Your task to perform on an android device: Open Yahoo.com Image 0: 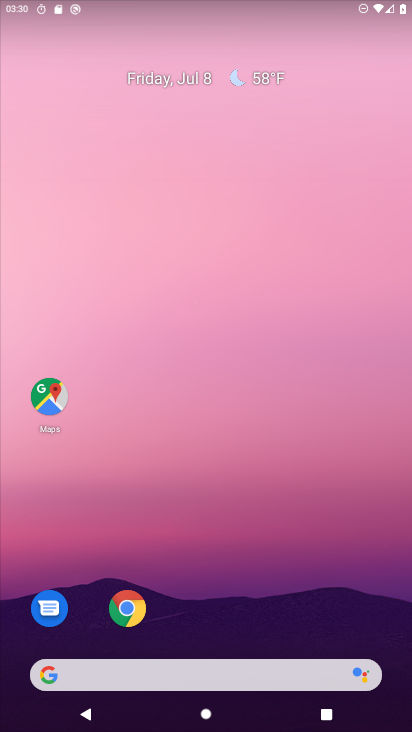
Step 0: click (123, 610)
Your task to perform on an android device: Open Yahoo.com Image 1: 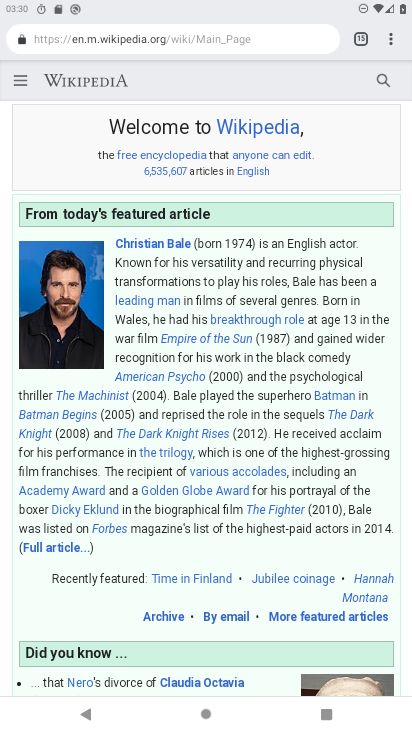
Step 1: click (389, 40)
Your task to perform on an android device: Open Yahoo.com Image 2: 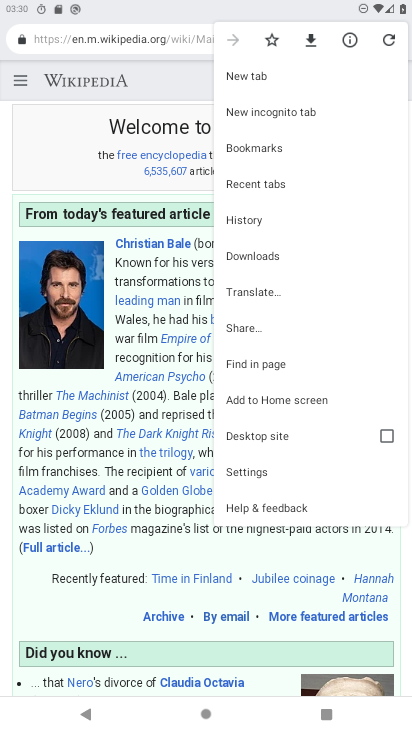
Step 2: click (247, 76)
Your task to perform on an android device: Open Yahoo.com Image 3: 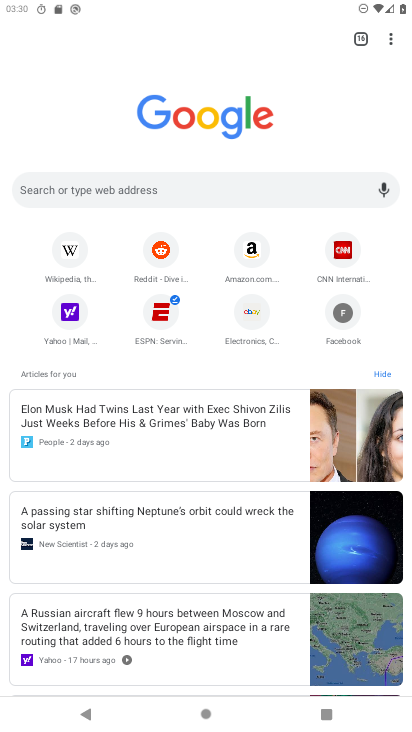
Step 3: click (69, 317)
Your task to perform on an android device: Open Yahoo.com Image 4: 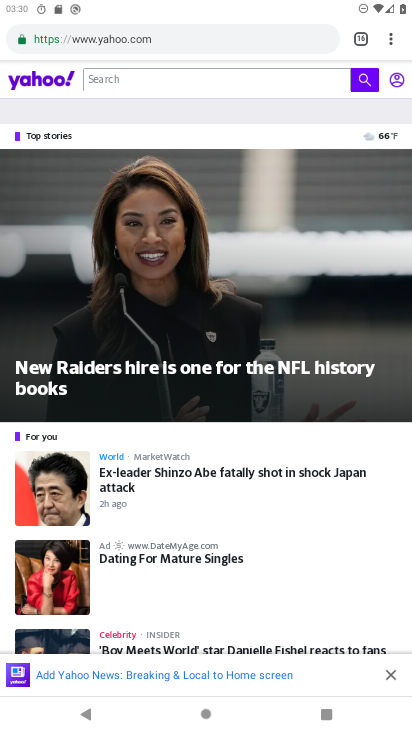
Step 4: task complete